Your task to perform on an android device: Open display settings Image 0: 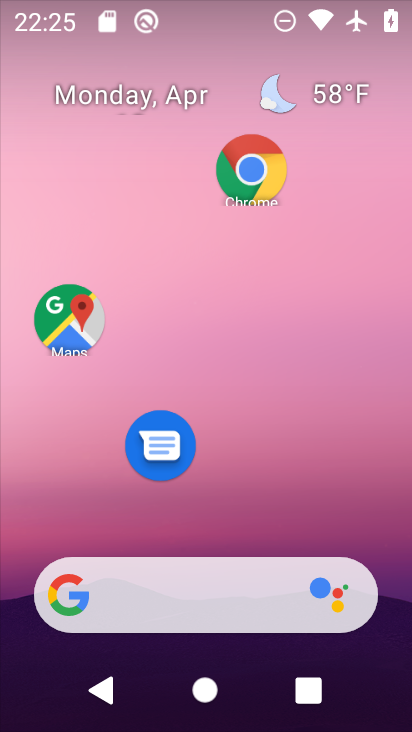
Step 0: drag from (207, 456) to (206, 102)
Your task to perform on an android device: Open display settings Image 1: 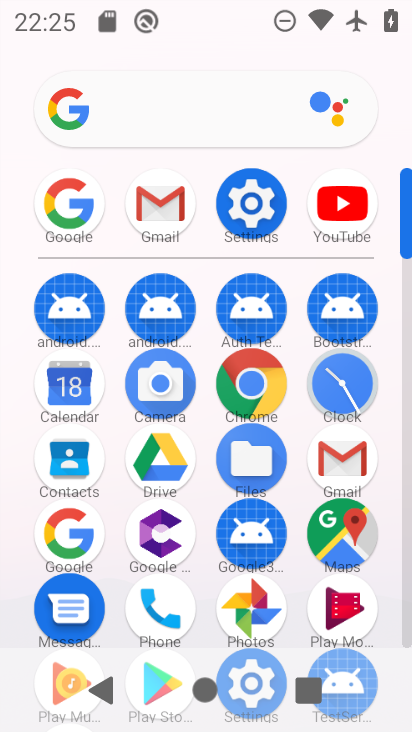
Step 1: click (244, 211)
Your task to perform on an android device: Open display settings Image 2: 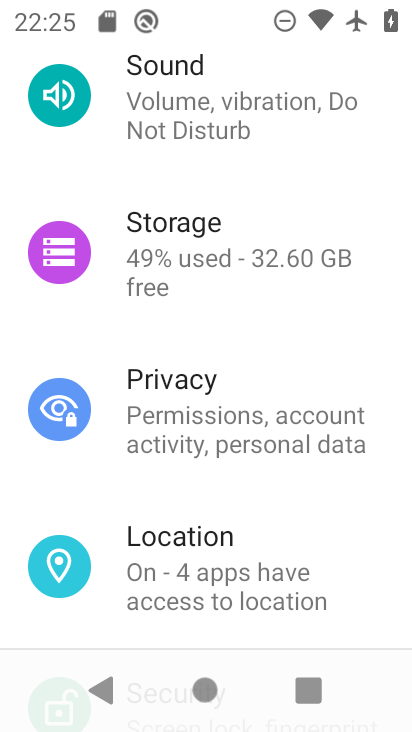
Step 2: drag from (280, 184) to (256, 532)
Your task to perform on an android device: Open display settings Image 3: 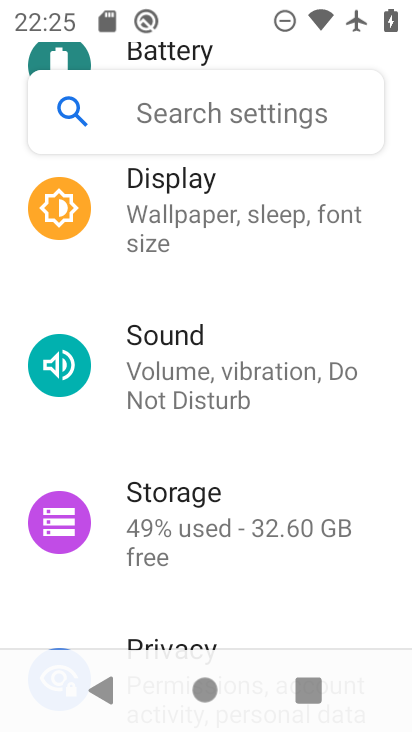
Step 3: click (223, 219)
Your task to perform on an android device: Open display settings Image 4: 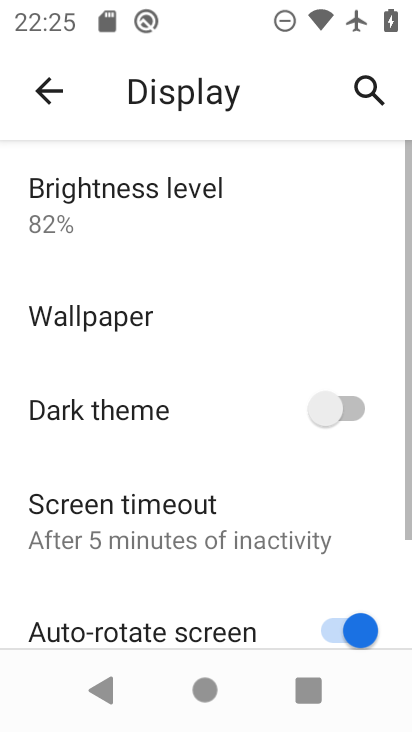
Step 4: drag from (227, 573) to (243, 256)
Your task to perform on an android device: Open display settings Image 5: 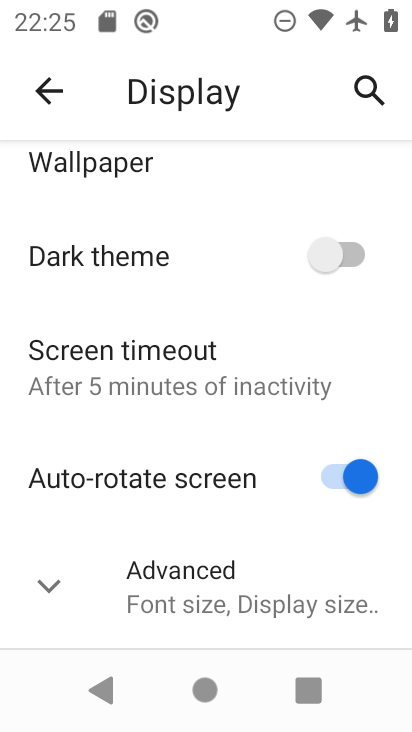
Step 5: click (163, 569)
Your task to perform on an android device: Open display settings Image 6: 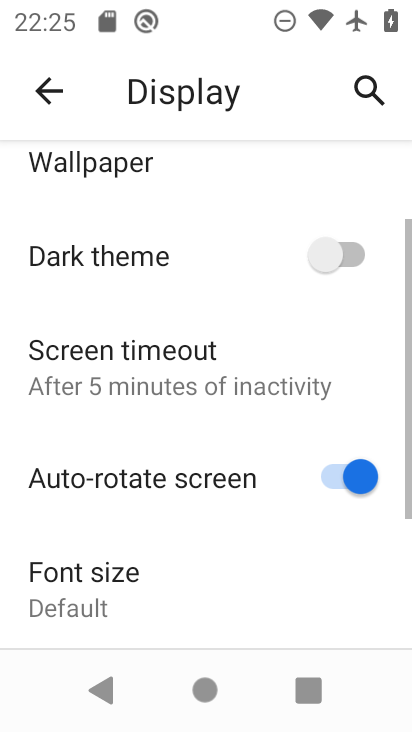
Step 6: task complete